Your task to perform on an android device: star an email in the gmail app Image 0: 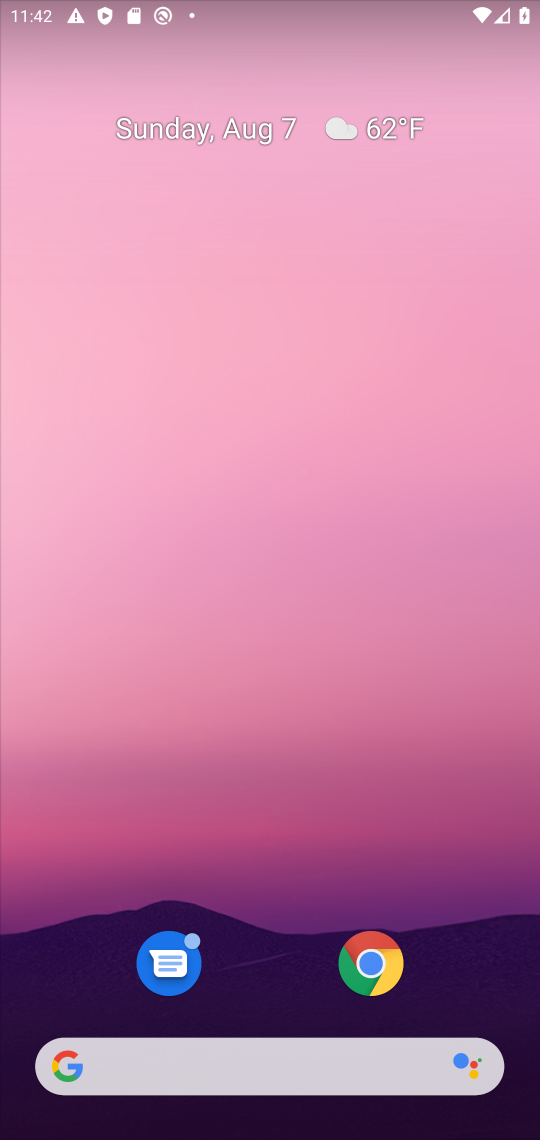
Step 0: drag from (504, 955) to (358, 94)
Your task to perform on an android device: star an email in the gmail app Image 1: 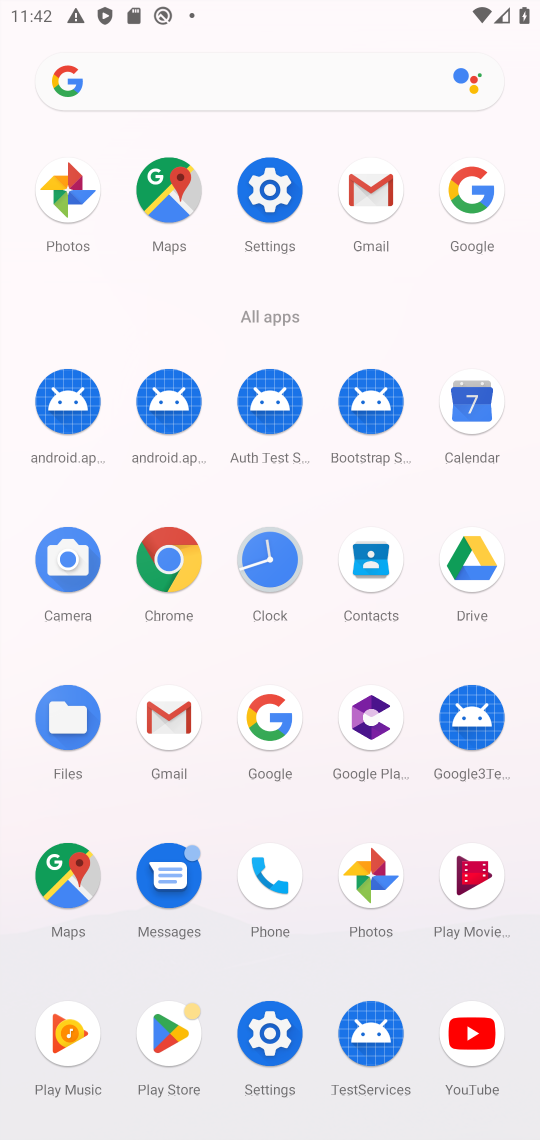
Step 1: click (182, 710)
Your task to perform on an android device: star an email in the gmail app Image 2: 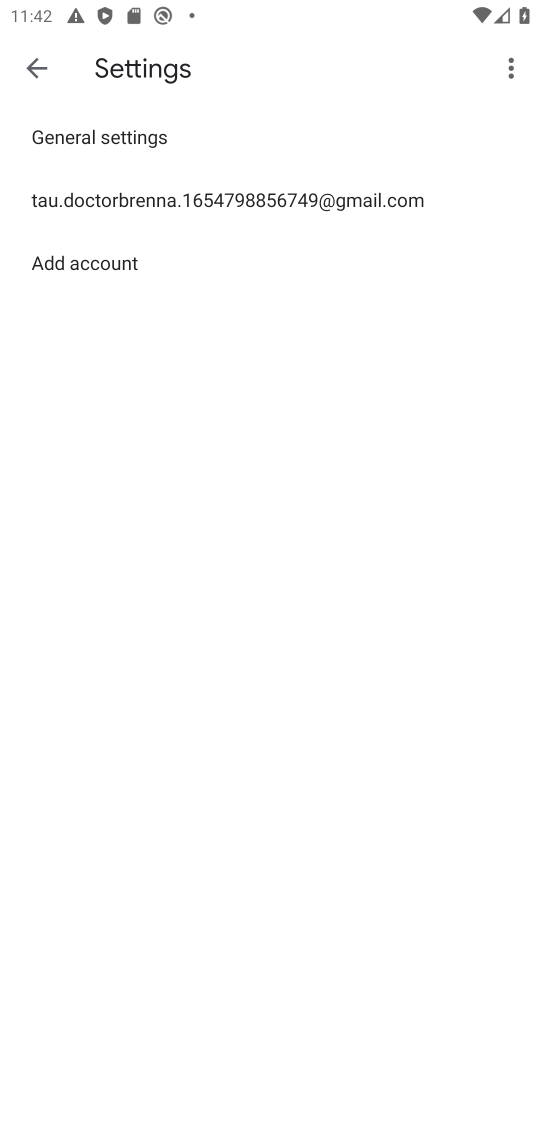
Step 2: press back button
Your task to perform on an android device: star an email in the gmail app Image 3: 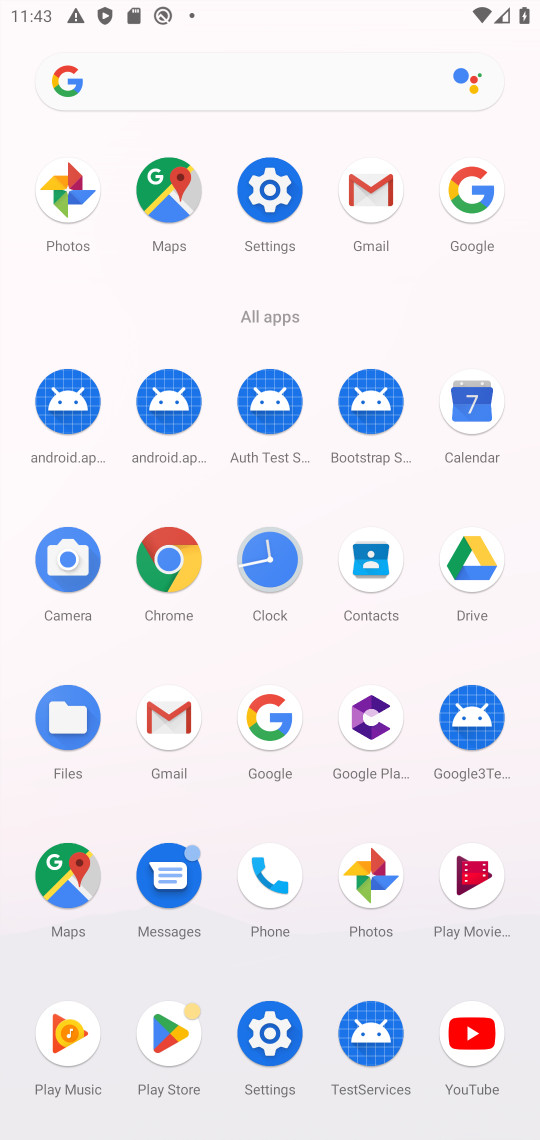
Step 3: click (160, 700)
Your task to perform on an android device: star an email in the gmail app Image 4: 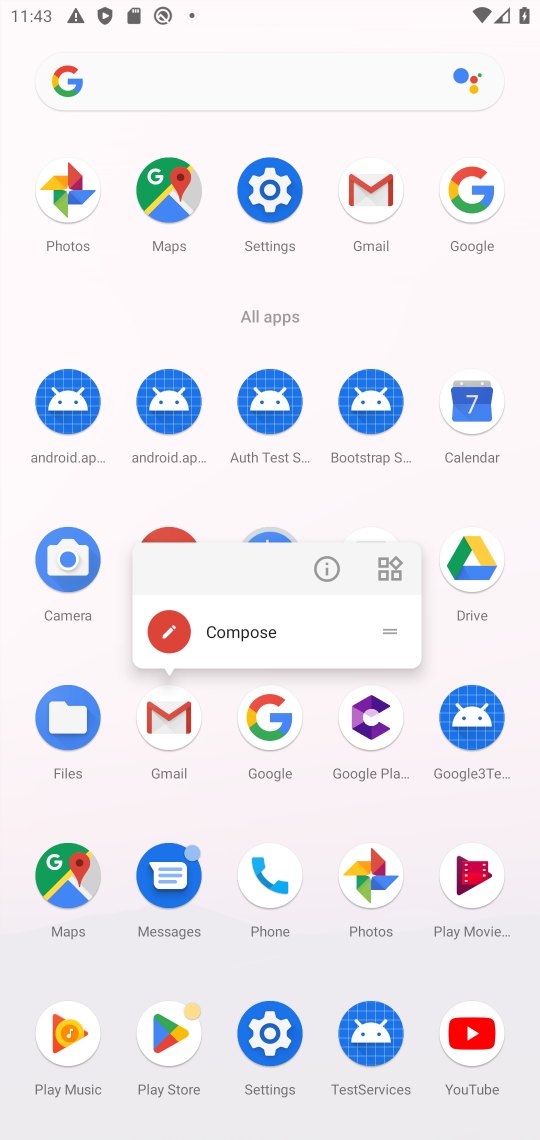
Step 4: click (160, 700)
Your task to perform on an android device: star an email in the gmail app Image 5: 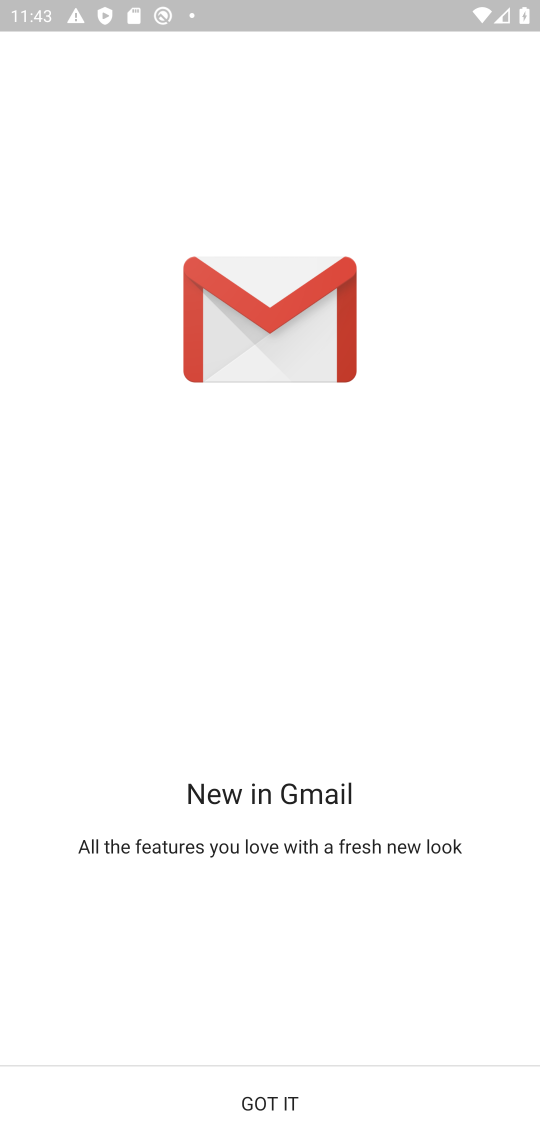
Step 5: click (331, 1104)
Your task to perform on an android device: star an email in the gmail app Image 6: 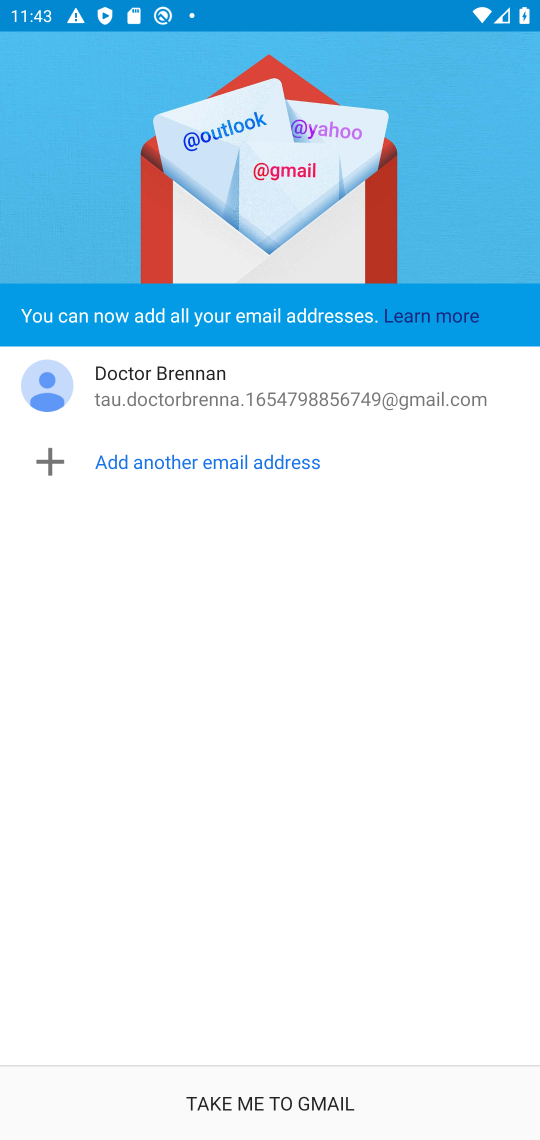
Step 6: click (331, 1104)
Your task to perform on an android device: star an email in the gmail app Image 7: 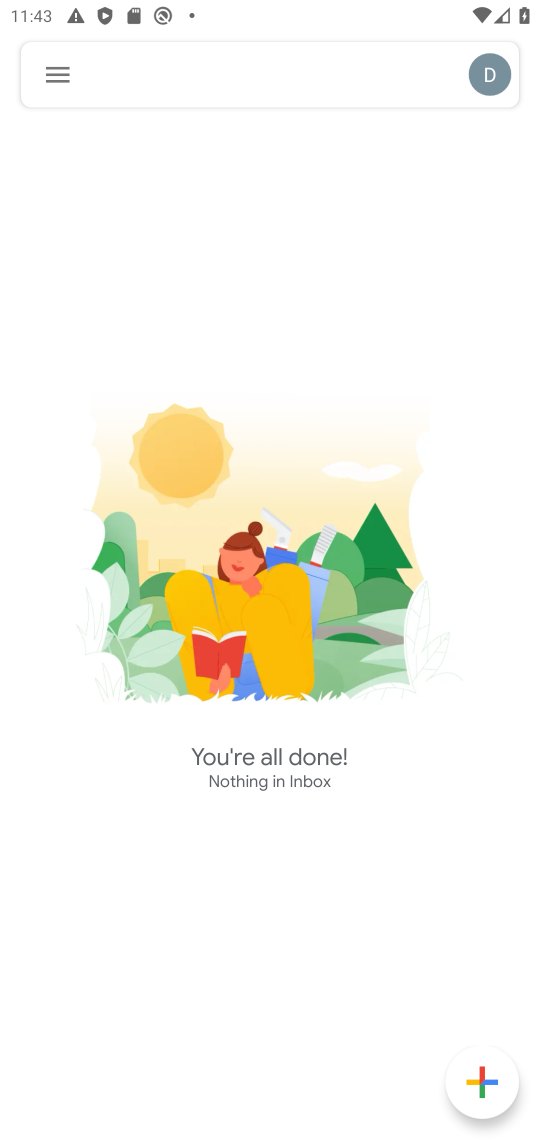
Step 7: task complete